Your task to perform on an android device: delete the emails in spam in the gmail app Image 0: 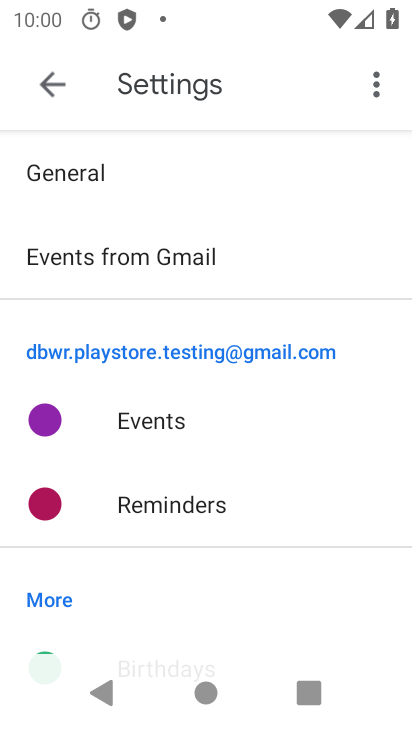
Step 0: click (46, 80)
Your task to perform on an android device: delete the emails in spam in the gmail app Image 1: 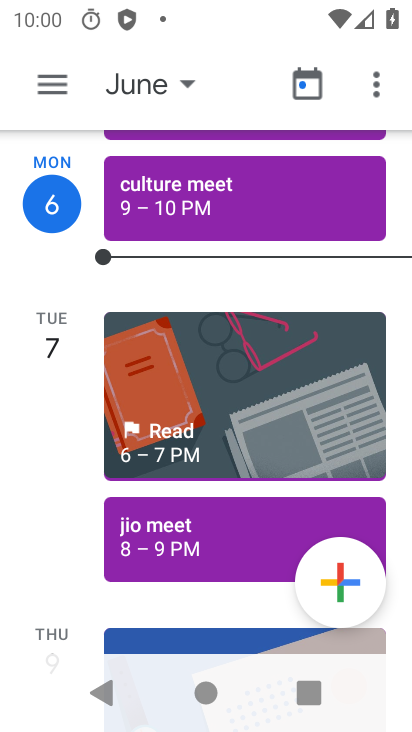
Step 1: press back button
Your task to perform on an android device: delete the emails in spam in the gmail app Image 2: 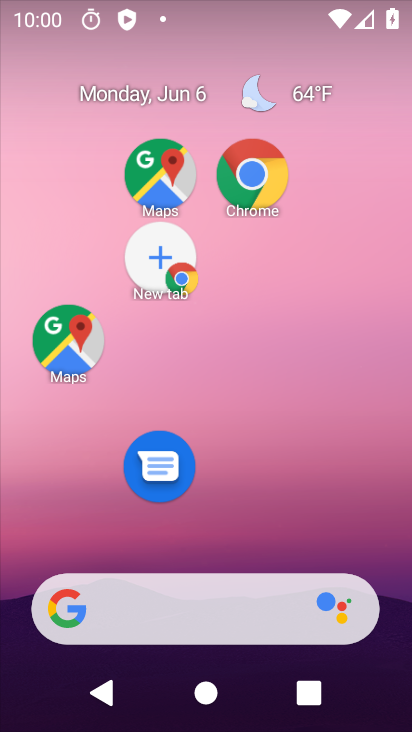
Step 2: drag from (262, 565) to (207, 105)
Your task to perform on an android device: delete the emails in spam in the gmail app Image 3: 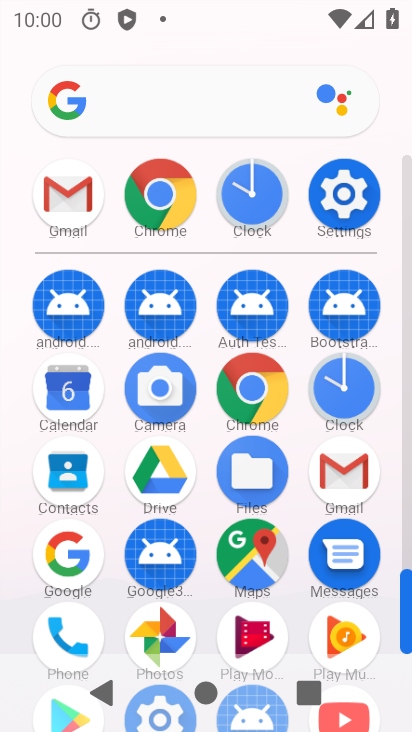
Step 3: click (351, 474)
Your task to perform on an android device: delete the emails in spam in the gmail app Image 4: 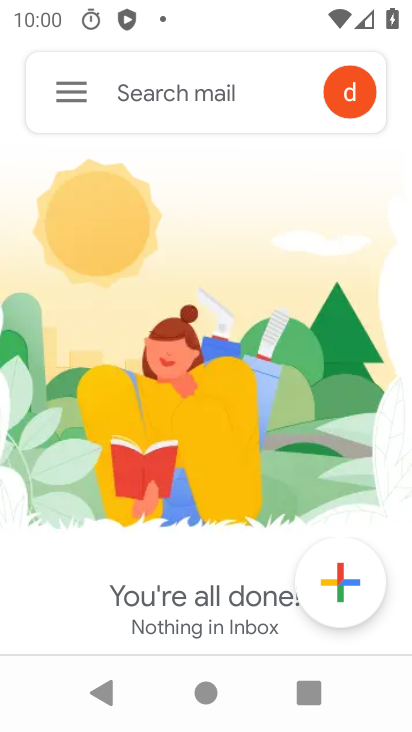
Step 4: click (78, 103)
Your task to perform on an android device: delete the emails in spam in the gmail app Image 5: 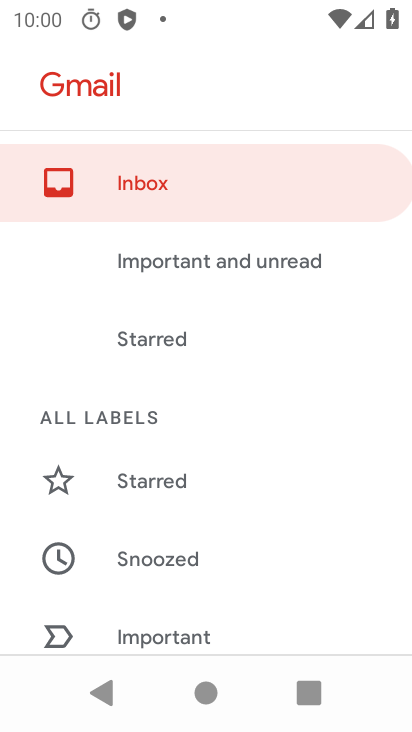
Step 5: drag from (191, 579) to (147, 144)
Your task to perform on an android device: delete the emails in spam in the gmail app Image 6: 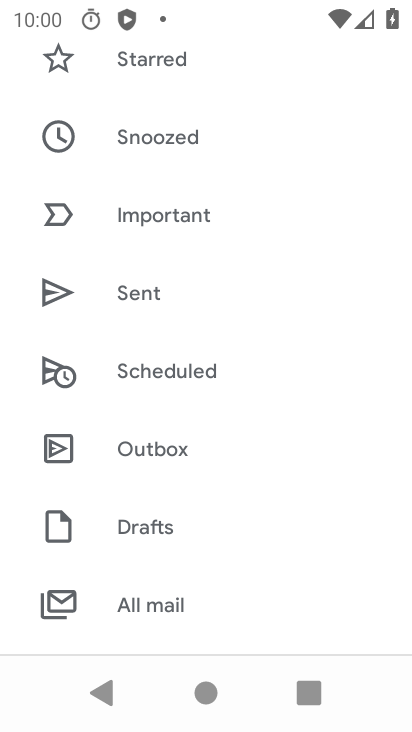
Step 6: drag from (207, 447) to (179, 208)
Your task to perform on an android device: delete the emails in spam in the gmail app Image 7: 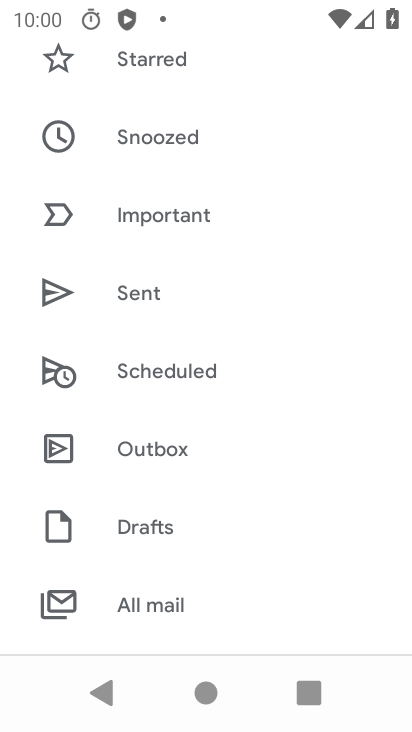
Step 7: drag from (240, 538) to (238, 229)
Your task to perform on an android device: delete the emails in spam in the gmail app Image 8: 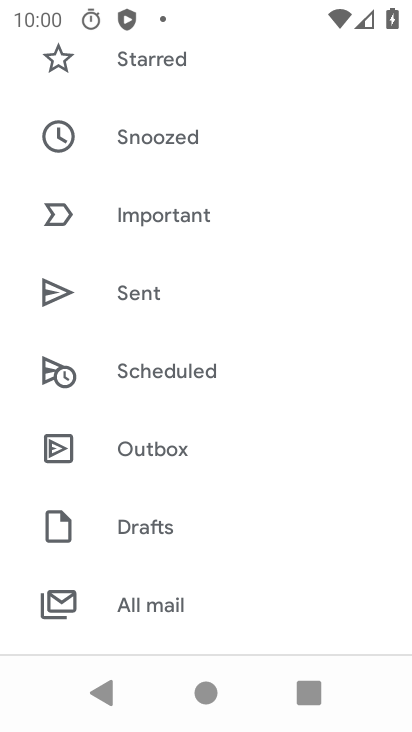
Step 8: click (144, 598)
Your task to perform on an android device: delete the emails in spam in the gmail app Image 9: 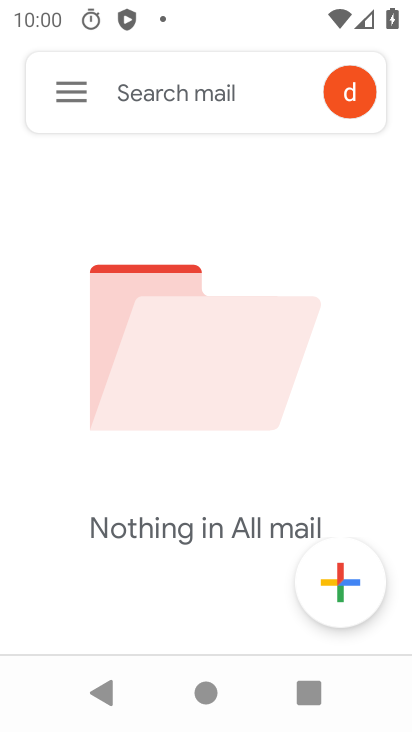
Step 9: press back button
Your task to perform on an android device: delete the emails in spam in the gmail app Image 10: 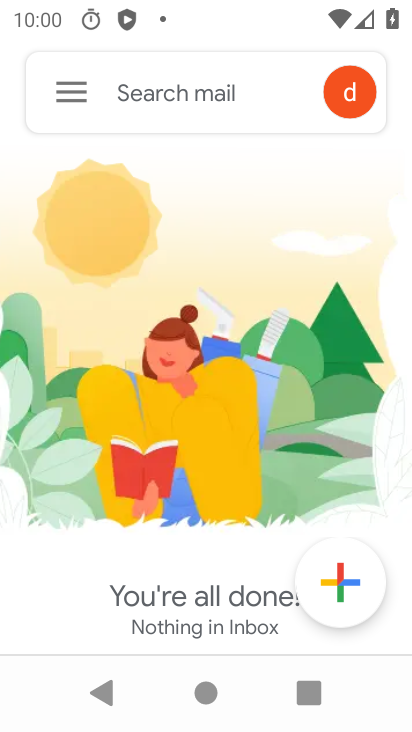
Step 10: click (67, 106)
Your task to perform on an android device: delete the emails in spam in the gmail app Image 11: 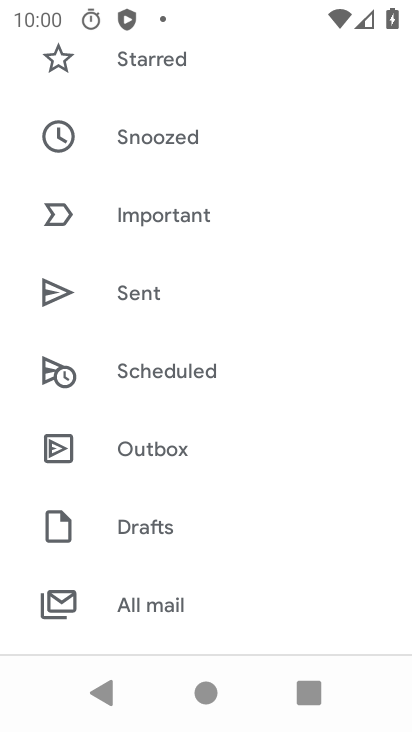
Step 11: drag from (166, 468) to (128, 114)
Your task to perform on an android device: delete the emails in spam in the gmail app Image 12: 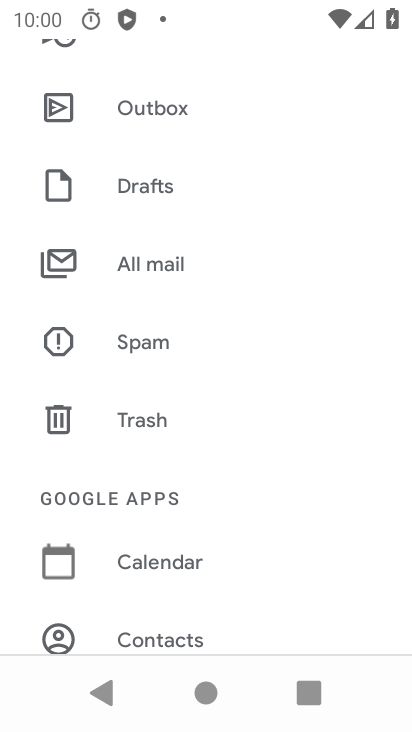
Step 12: drag from (125, 454) to (120, 317)
Your task to perform on an android device: delete the emails in spam in the gmail app Image 13: 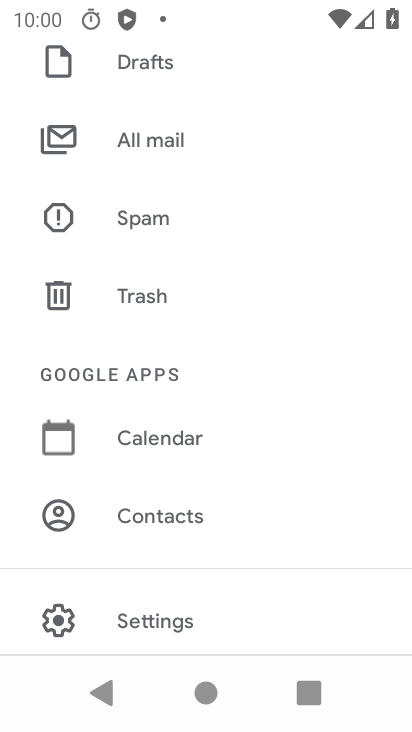
Step 13: click (137, 217)
Your task to perform on an android device: delete the emails in spam in the gmail app Image 14: 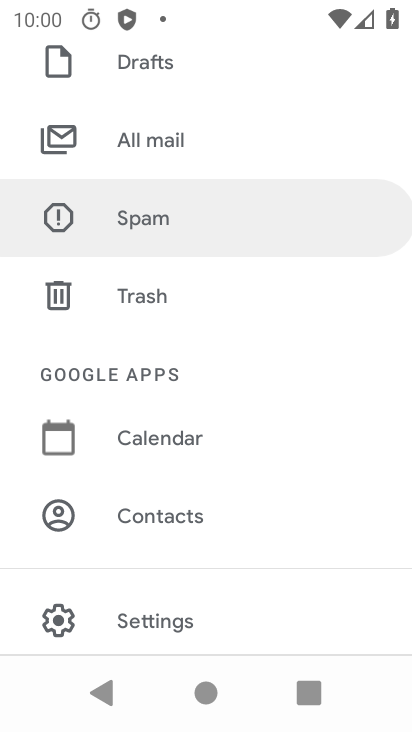
Step 14: click (137, 217)
Your task to perform on an android device: delete the emails in spam in the gmail app Image 15: 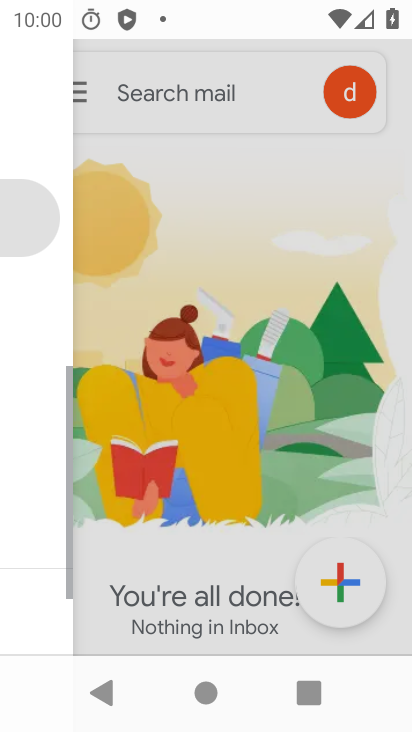
Step 15: click (138, 216)
Your task to perform on an android device: delete the emails in spam in the gmail app Image 16: 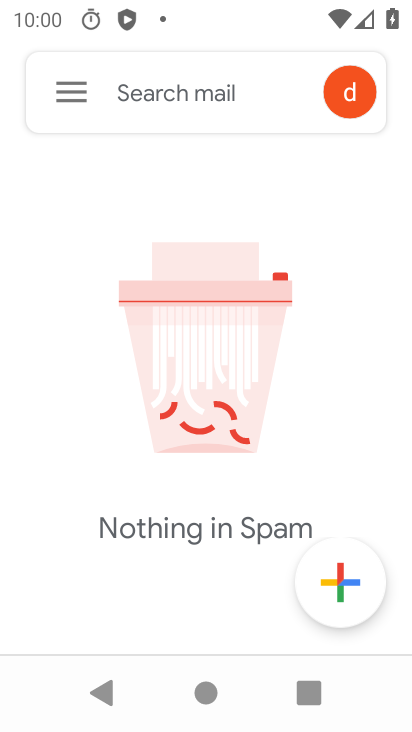
Step 16: task complete